Your task to perform on an android device: Open maps Image 0: 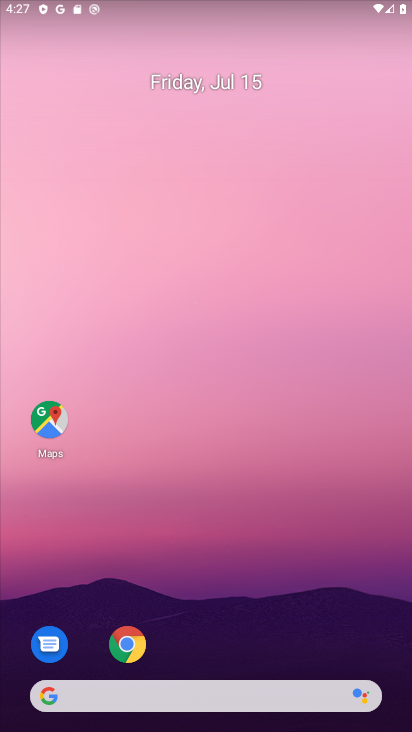
Step 0: drag from (203, 667) to (160, 348)
Your task to perform on an android device: Open maps Image 1: 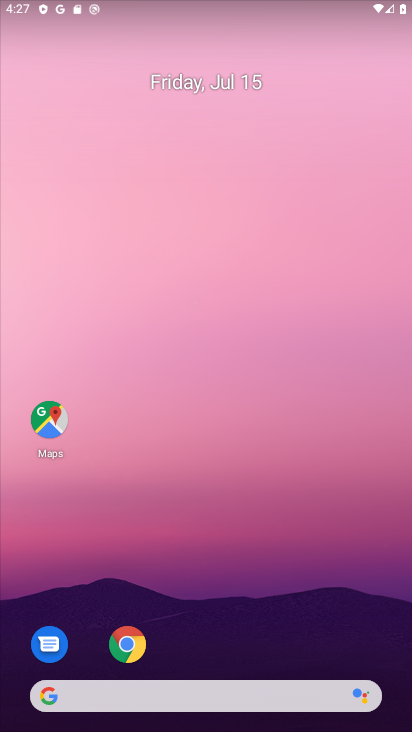
Step 1: click (39, 417)
Your task to perform on an android device: Open maps Image 2: 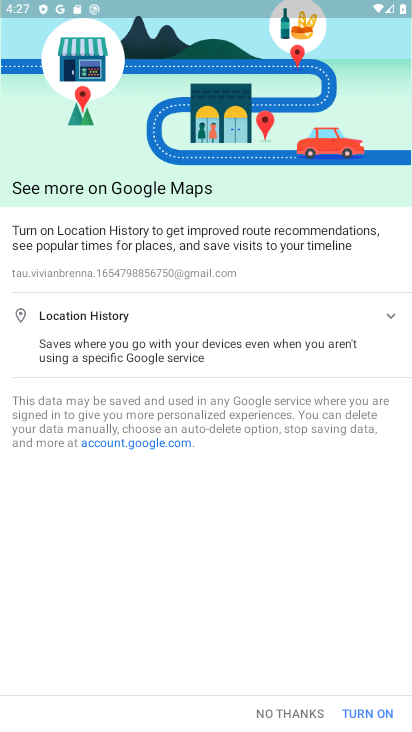
Step 2: task complete